Your task to perform on an android device: delete location history Image 0: 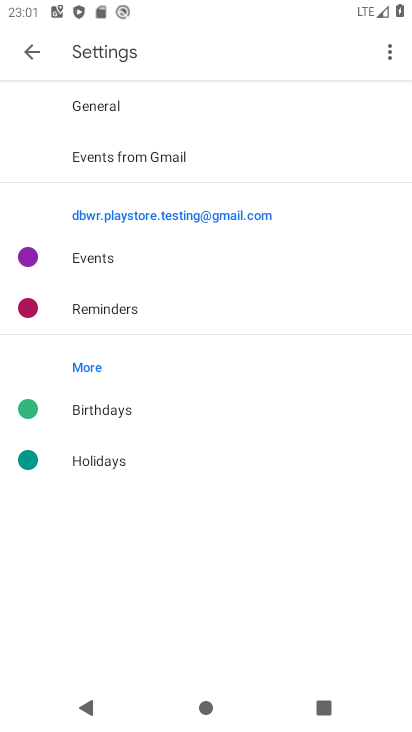
Step 0: press back button
Your task to perform on an android device: delete location history Image 1: 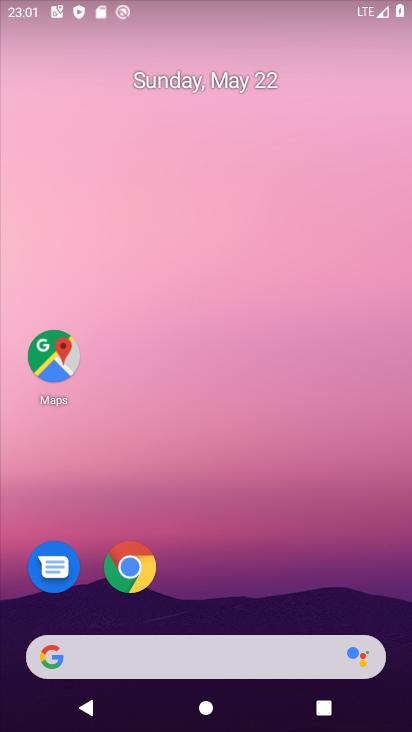
Step 1: drag from (289, 590) to (198, 9)
Your task to perform on an android device: delete location history Image 2: 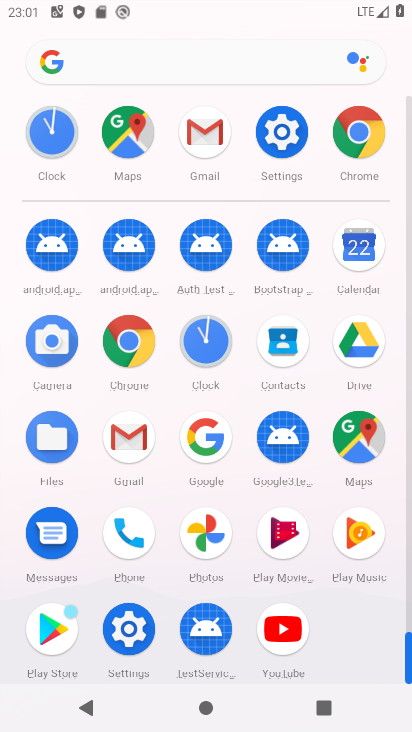
Step 2: click (283, 129)
Your task to perform on an android device: delete location history Image 3: 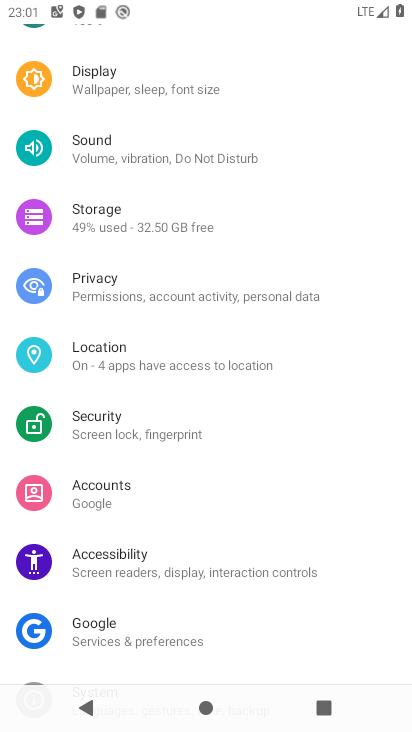
Step 3: click (178, 334)
Your task to perform on an android device: delete location history Image 4: 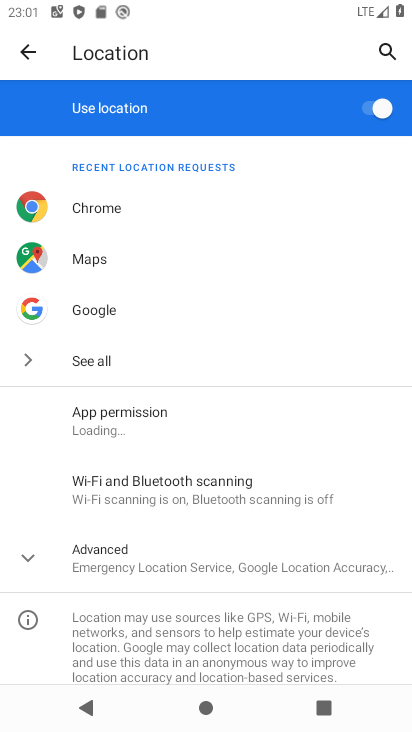
Step 4: click (86, 561)
Your task to perform on an android device: delete location history Image 5: 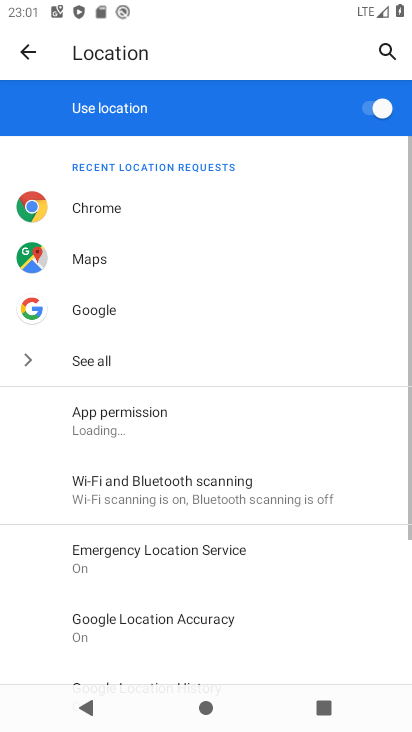
Step 5: drag from (273, 626) to (304, 219)
Your task to perform on an android device: delete location history Image 6: 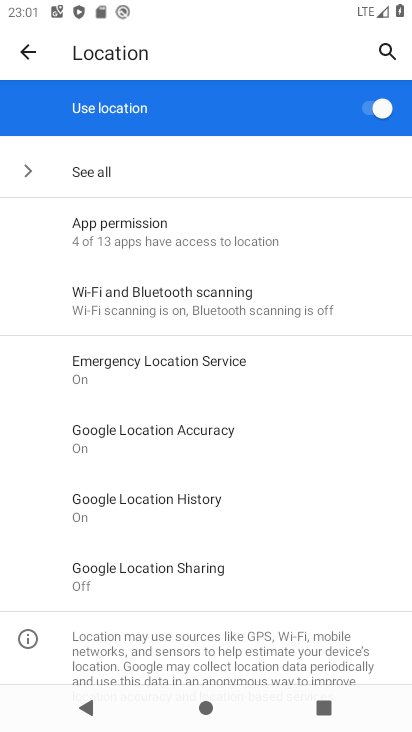
Step 6: click (229, 492)
Your task to perform on an android device: delete location history Image 7: 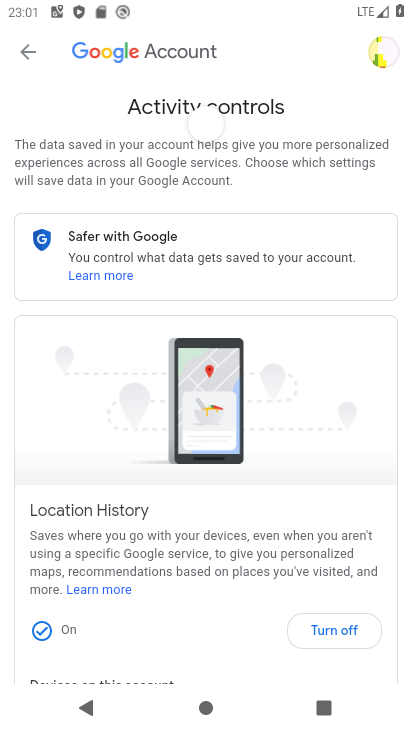
Step 7: drag from (240, 566) to (256, 136)
Your task to perform on an android device: delete location history Image 8: 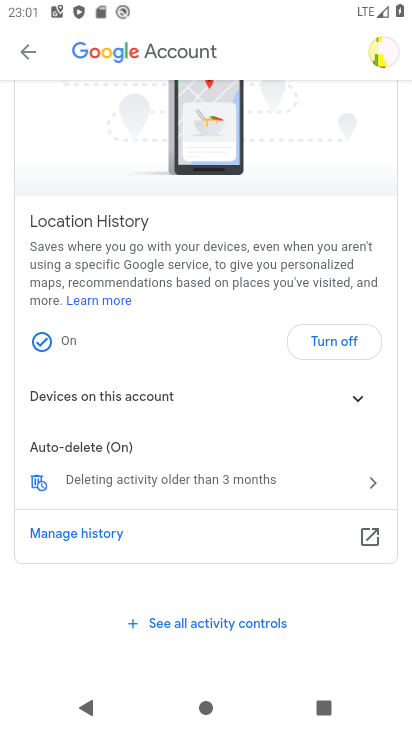
Step 8: click (170, 491)
Your task to perform on an android device: delete location history Image 9: 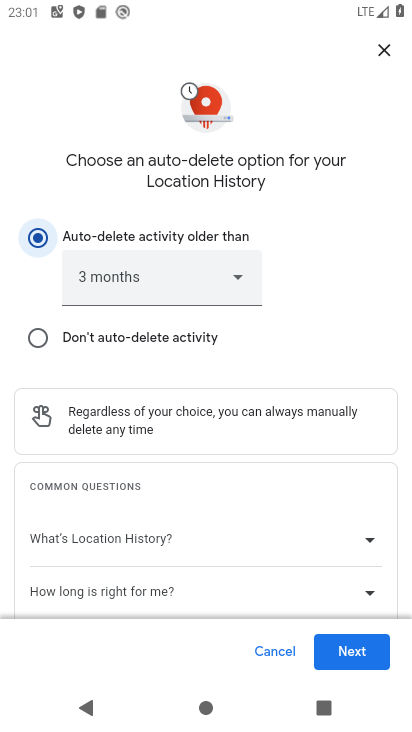
Step 9: click (340, 642)
Your task to perform on an android device: delete location history Image 10: 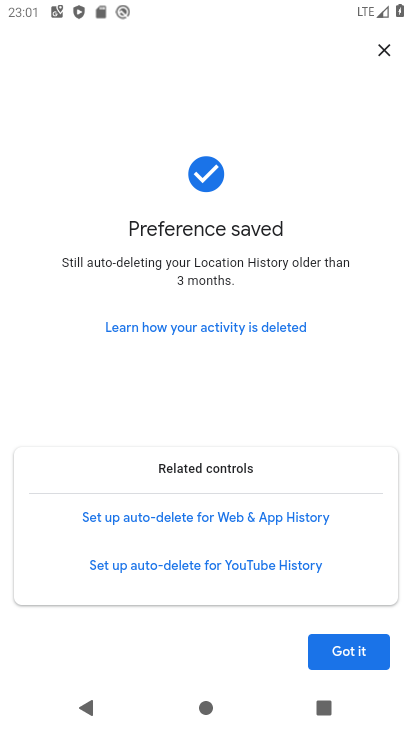
Step 10: task complete